Your task to perform on an android device: Open display settings Image 0: 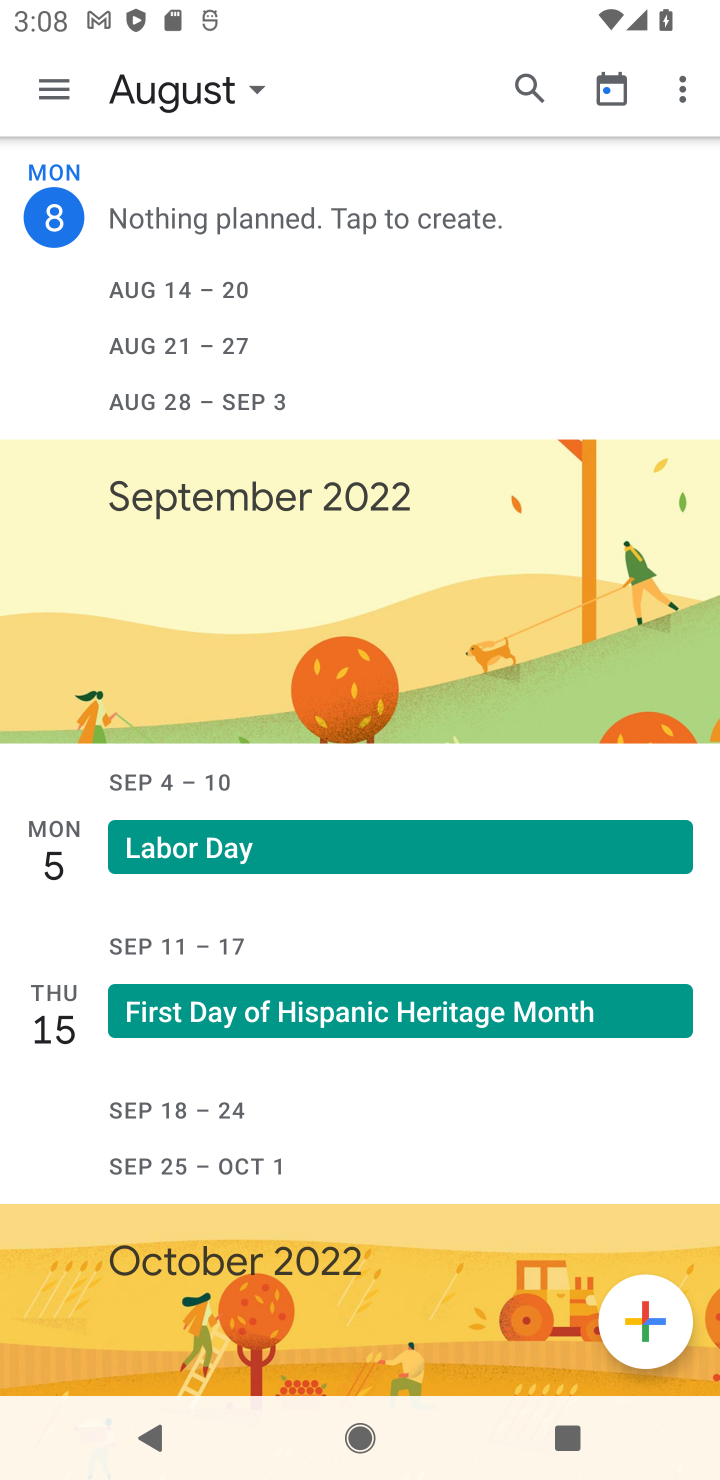
Step 0: press home button
Your task to perform on an android device: Open display settings Image 1: 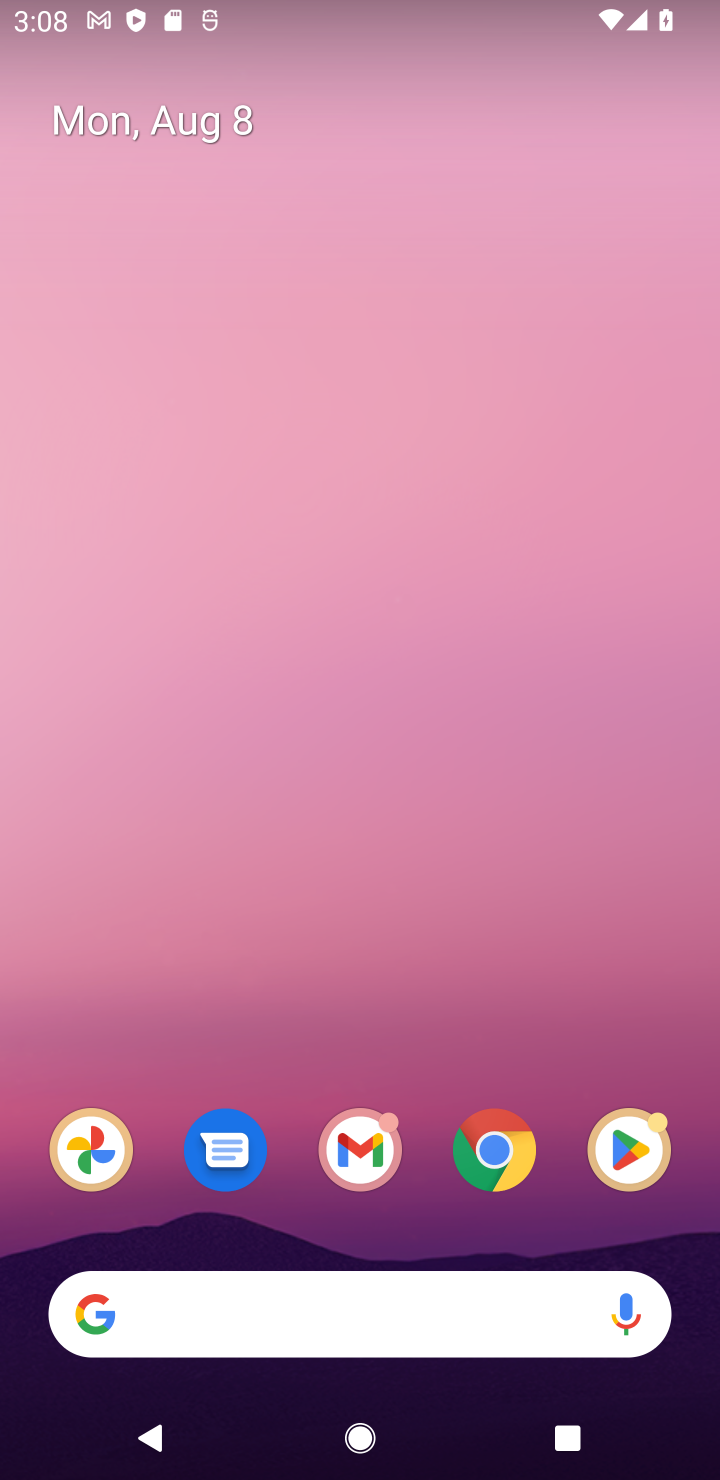
Step 1: drag from (460, 1224) to (252, 43)
Your task to perform on an android device: Open display settings Image 2: 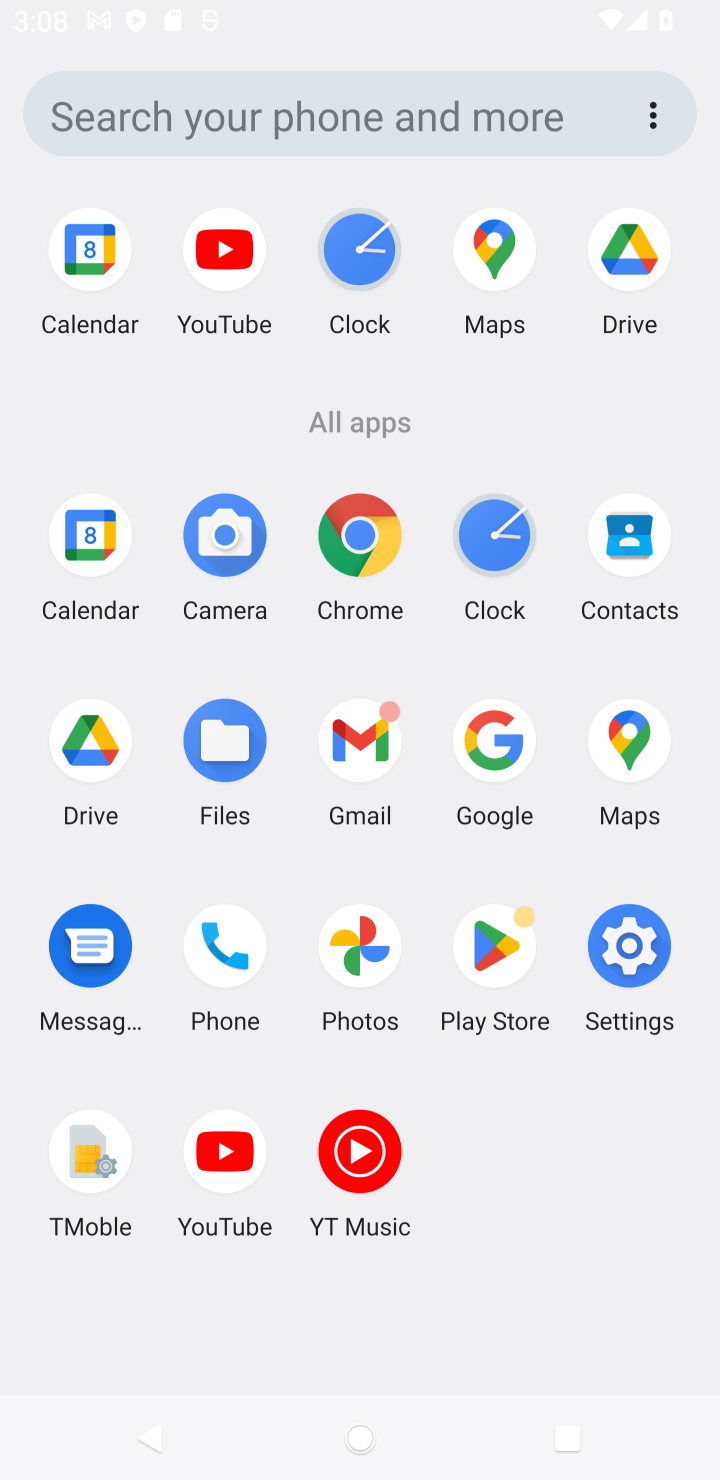
Step 2: click (672, 1023)
Your task to perform on an android device: Open display settings Image 3: 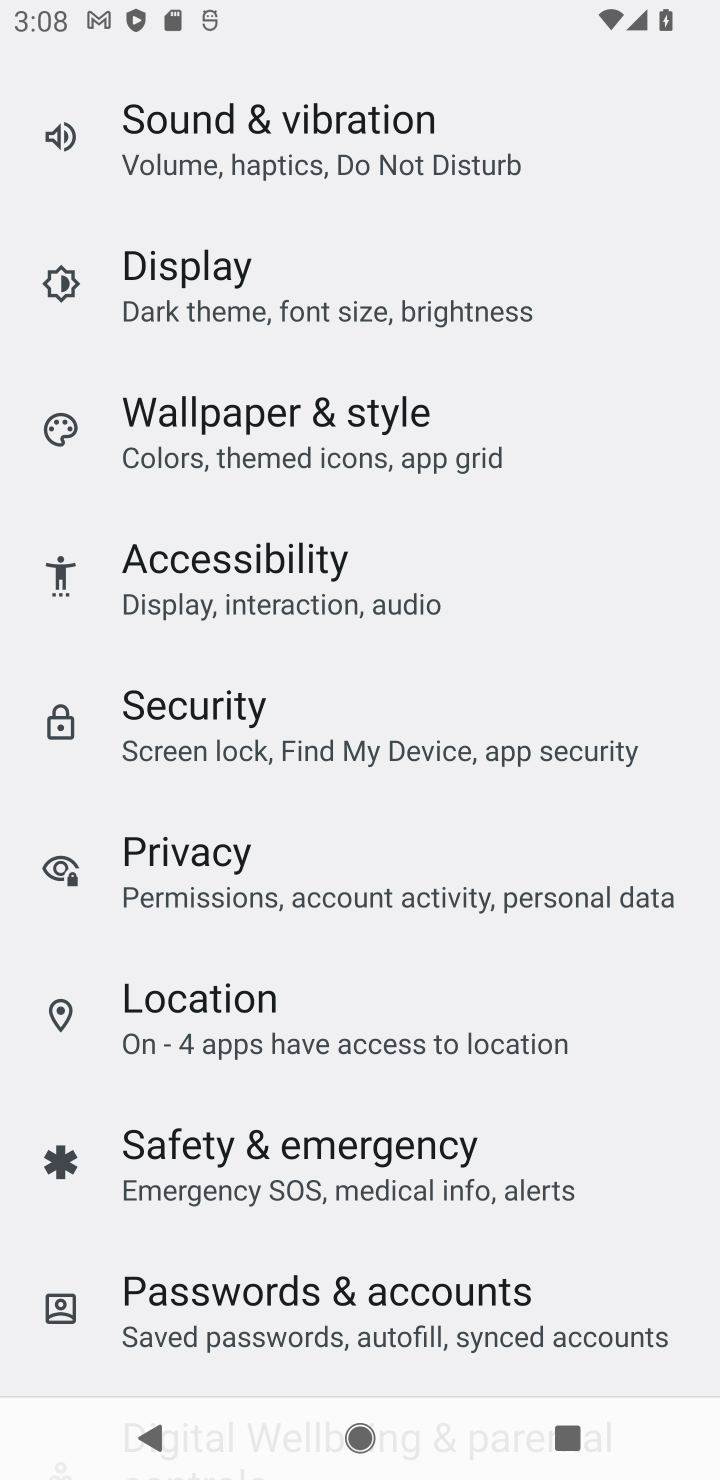
Step 3: click (323, 316)
Your task to perform on an android device: Open display settings Image 4: 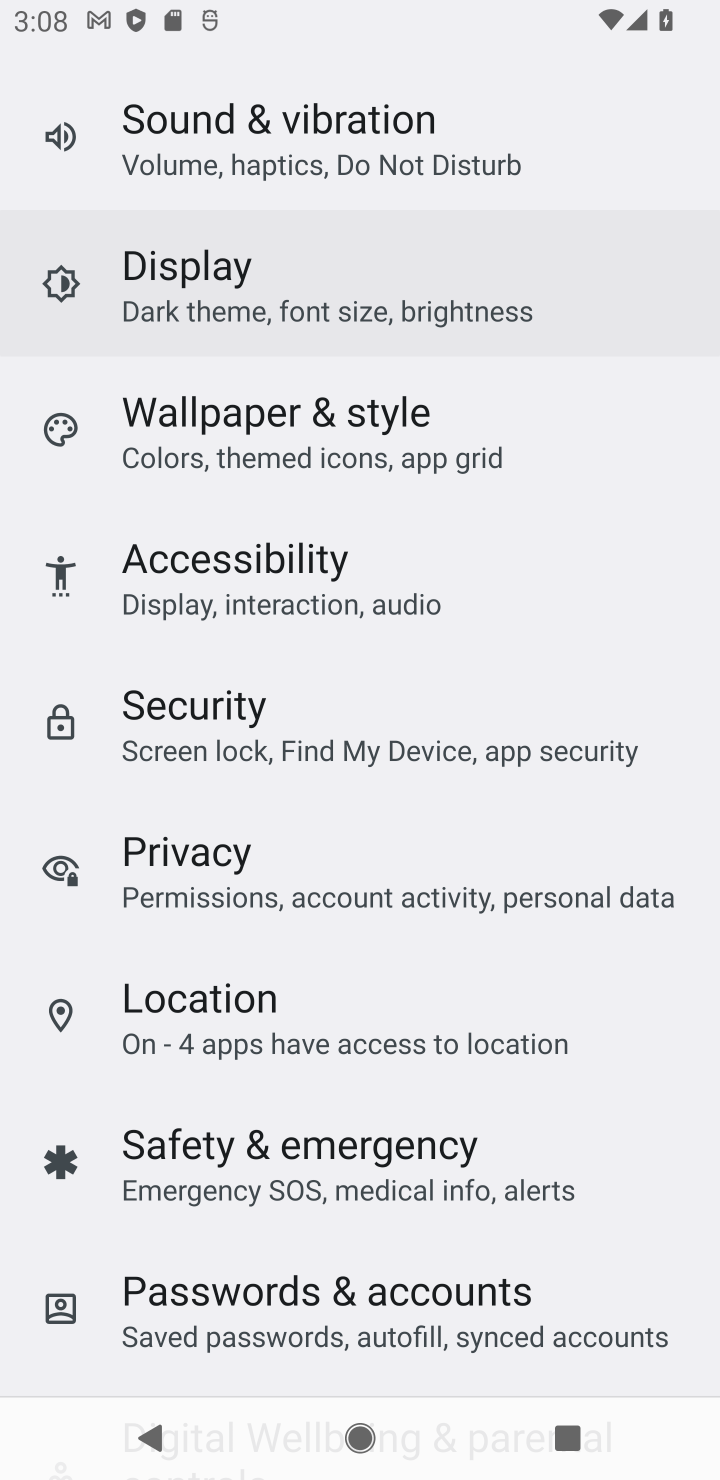
Step 4: task complete